Your task to perform on an android device: Is it going to rain this weekend? Image 0: 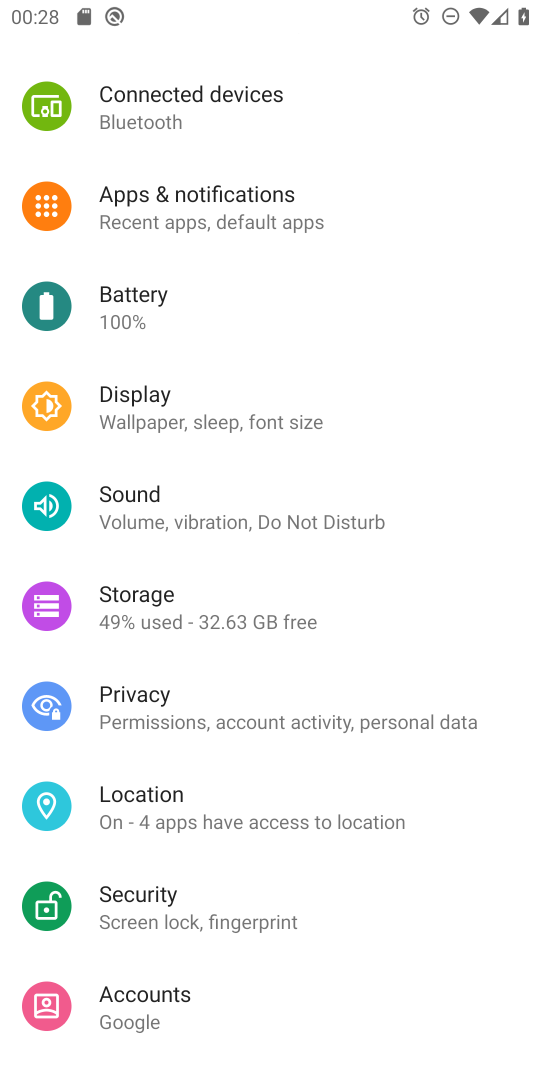
Step 0: press home button
Your task to perform on an android device: Is it going to rain this weekend? Image 1: 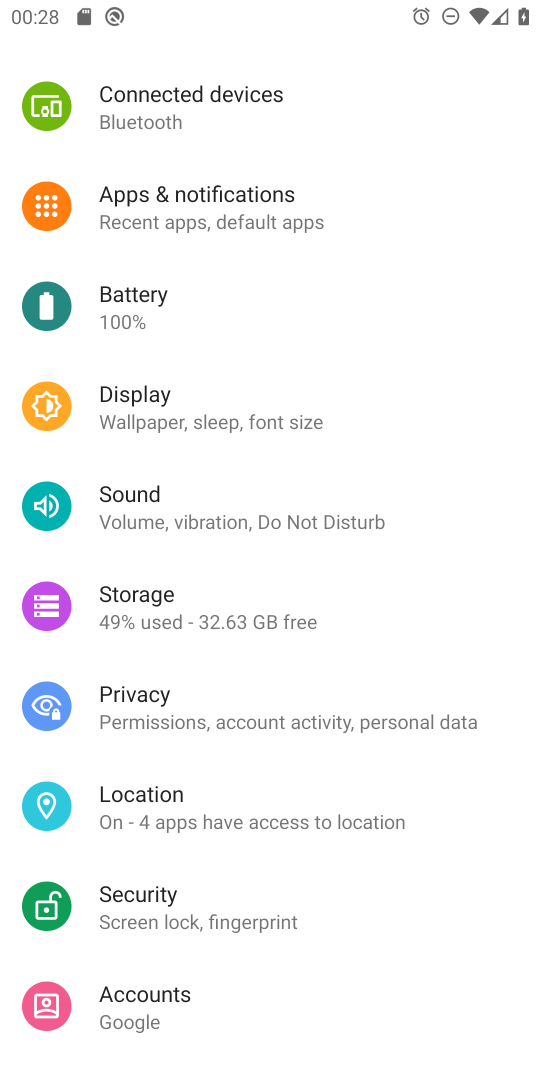
Step 1: press home button
Your task to perform on an android device: Is it going to rain this weekend? Image 2: 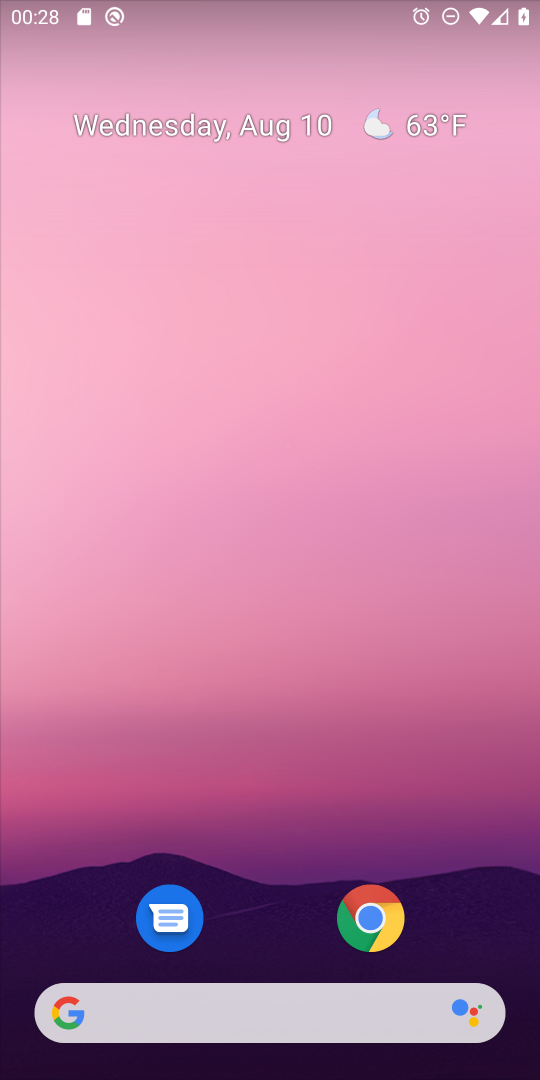
Step 2: drag from (237, 901) to (325, 84)
Your task to perform on an android device: Is it going to rain this weekend? Image 3: 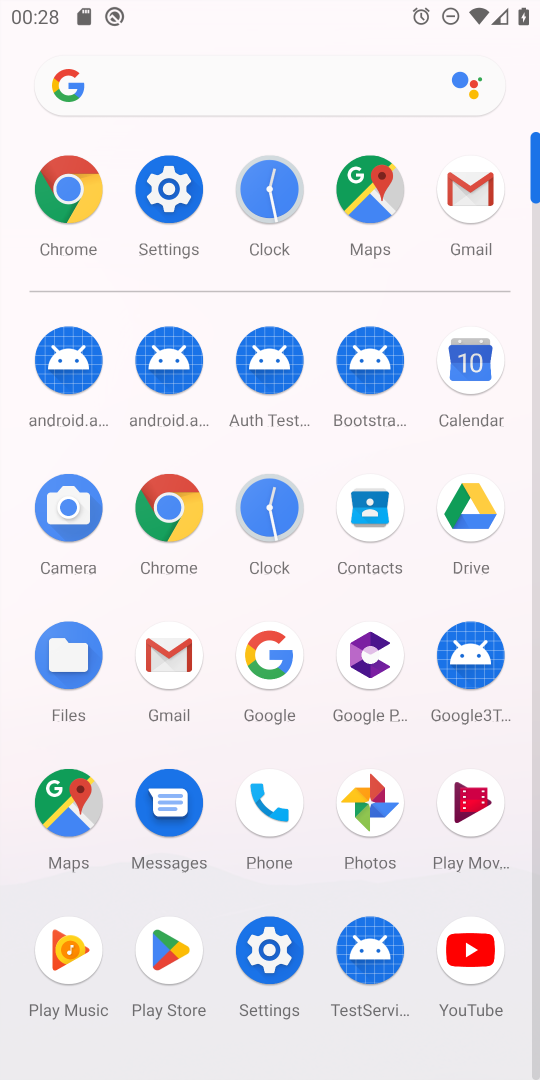
Step 3: click (170, 504)
Your task to perform on an android device: Is it going to rain this weekend? Image 4: 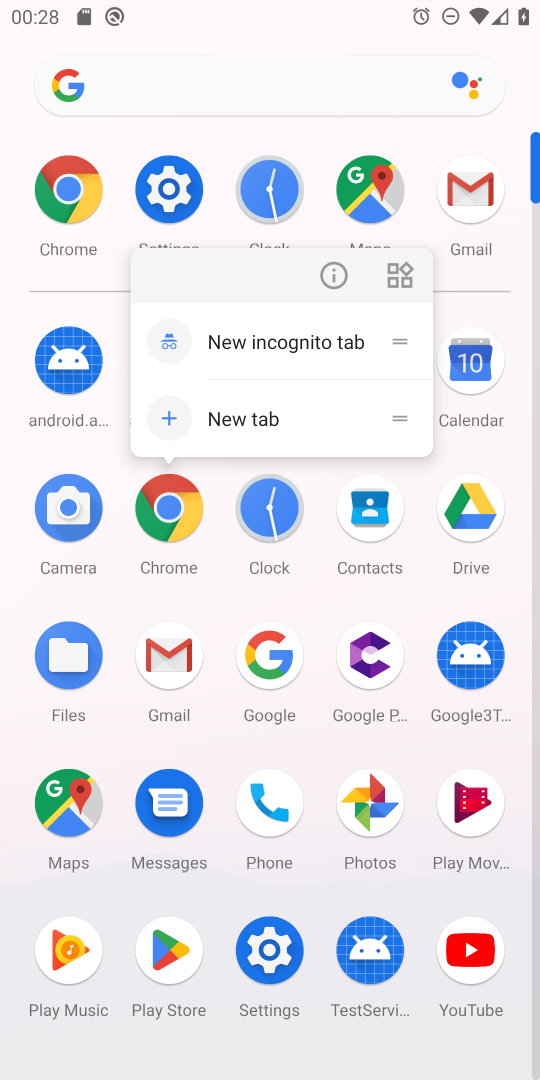
Step 4: click (165, 514)
Your task to perform on an android device: Is it going to rain this weekend? Image 5: 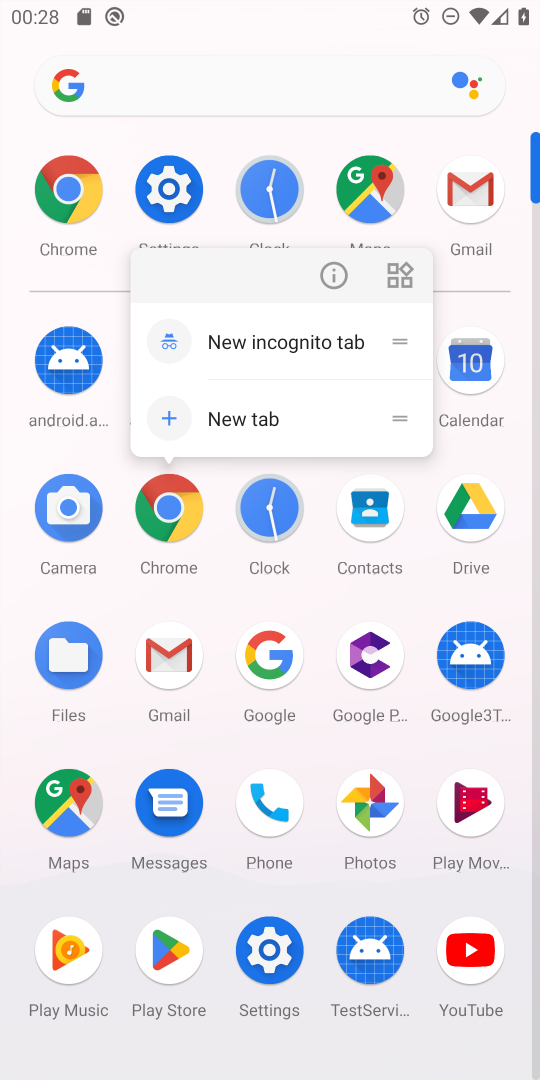
Step 5: click (167, 513)
Your task to perform on an android device: Is it going to rain this weekend? Image 6: 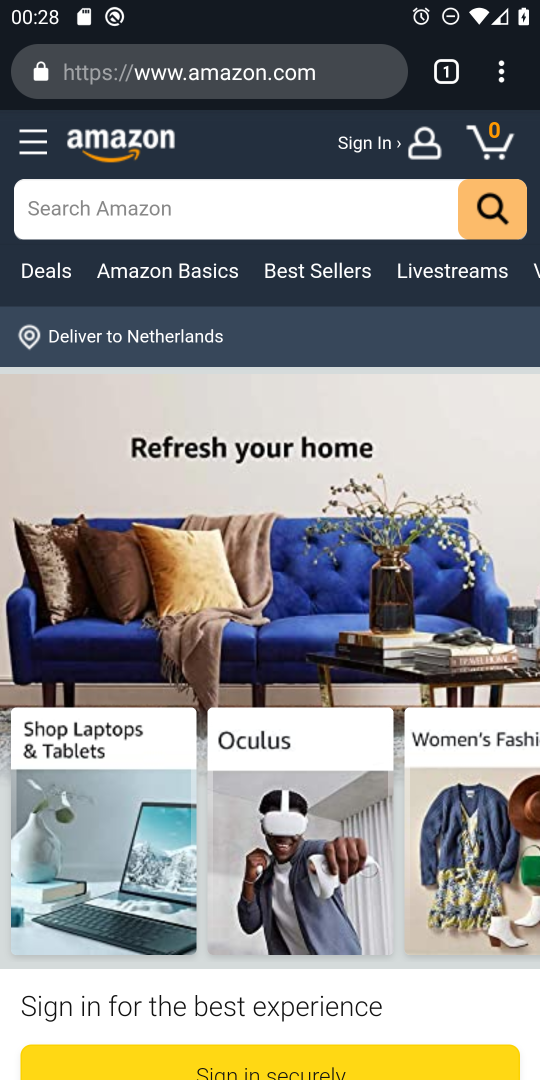
Step 6: click (253, 85)
Your task to perform on an android device: Is it going to rain this weekend? Image 7: 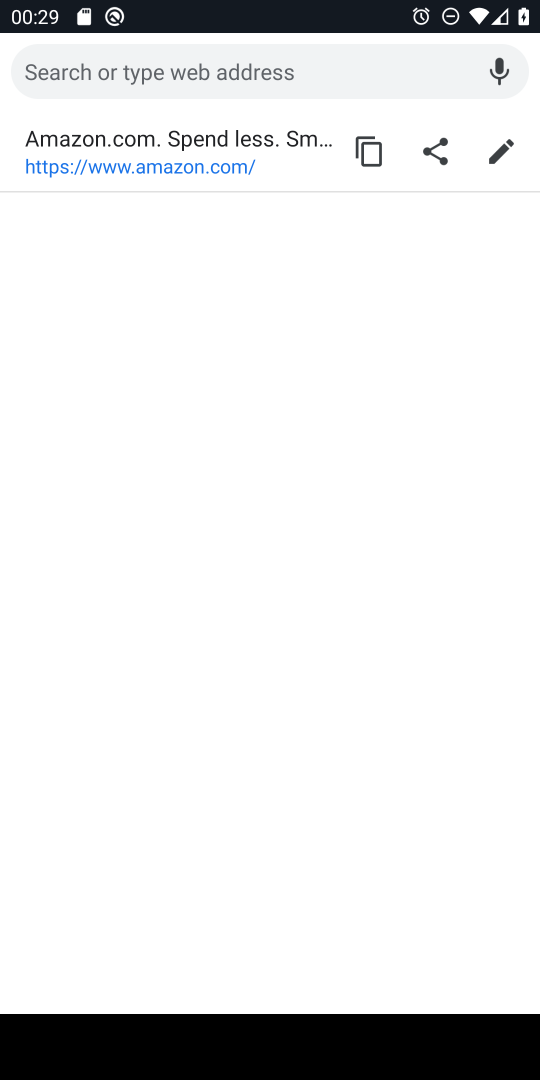
Step 7: type "weather"
Your task to perform on an android device: Is it going to rain this weekend? Image 8: 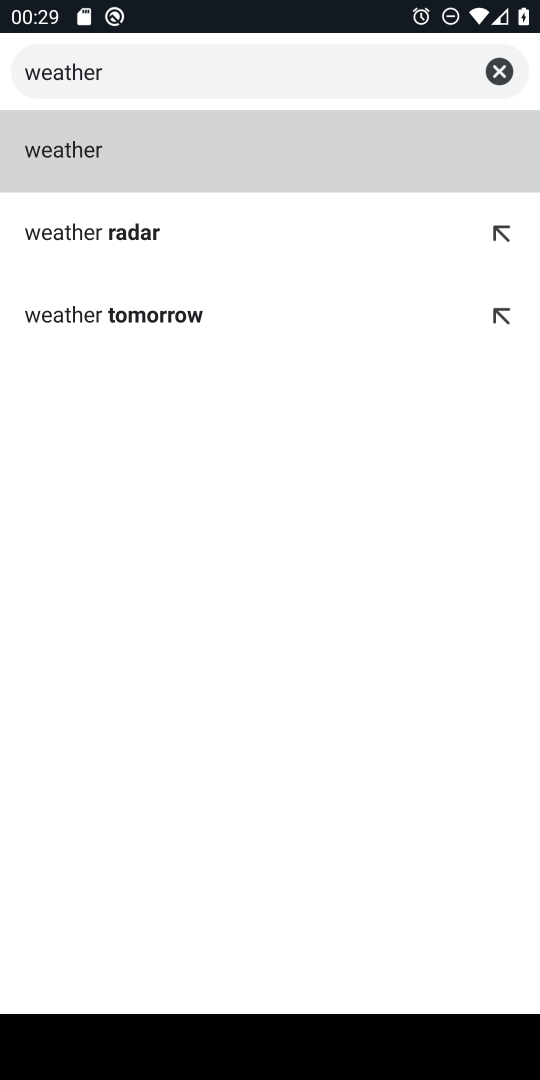
Step 8: click (82, 147)
Your task to perform on an android device: Is it going to rain this weekend? Image 9: 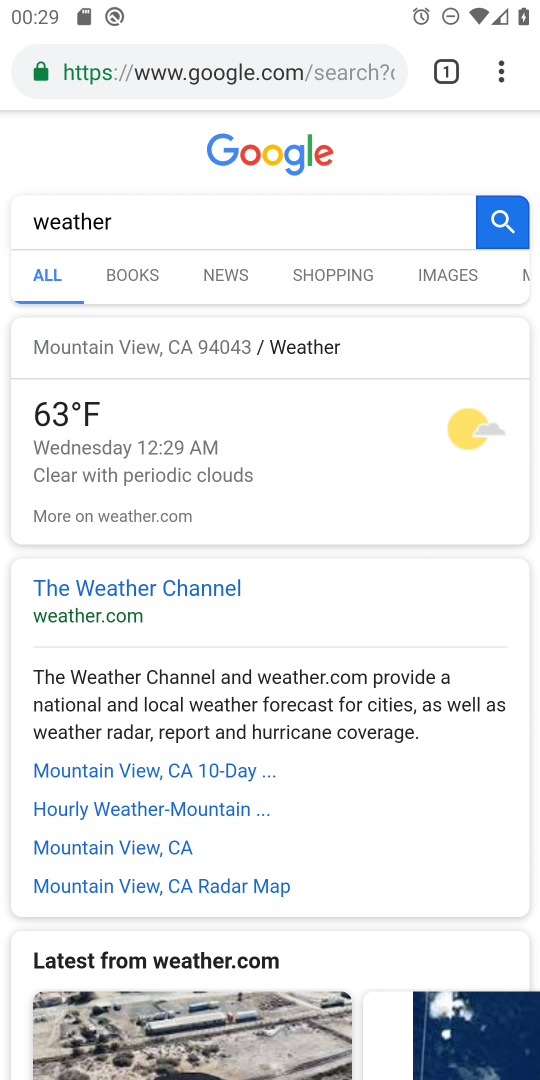
Step 9: click (262, 227)
Your task to perform on an android device: Is it going to rain this weekend? Image 10: 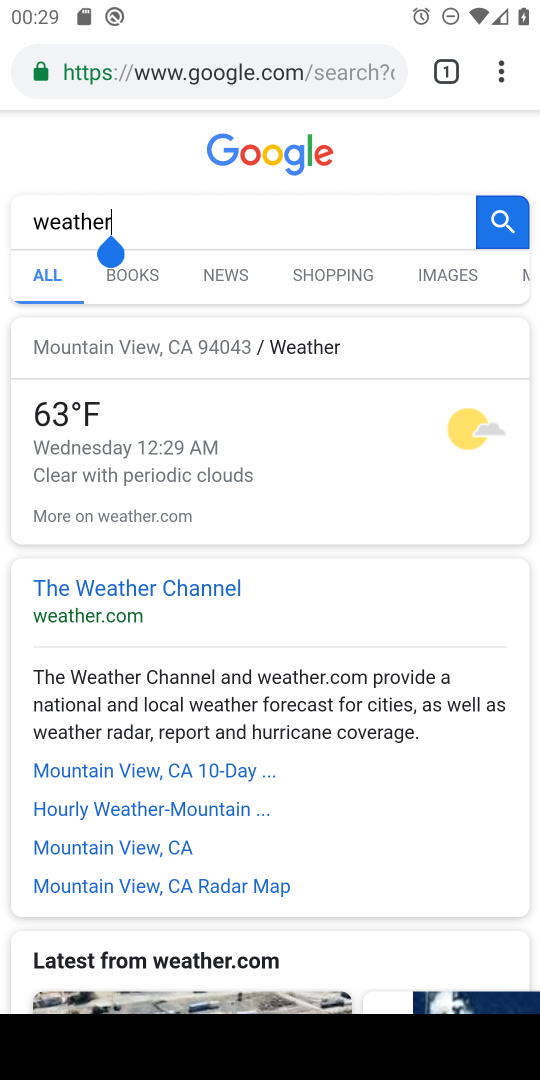
Step 10: type "  weekend"
Your task to perform on an android device: Is it going to rain this weekend? Image 11: 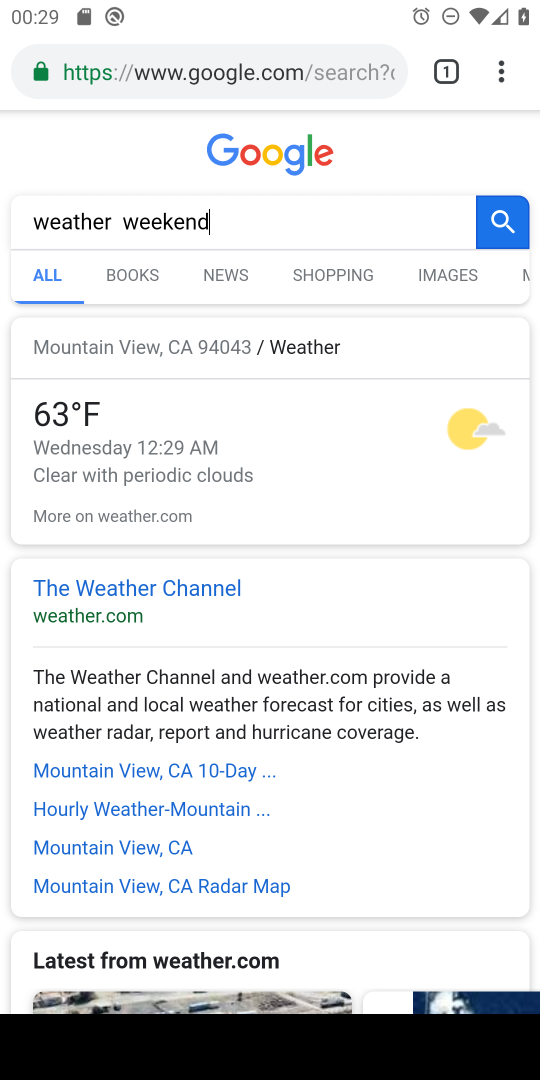
Step 11: click (508, 218)
Your task to perform on an android device: Is it going to rain this weekend? Image 12: 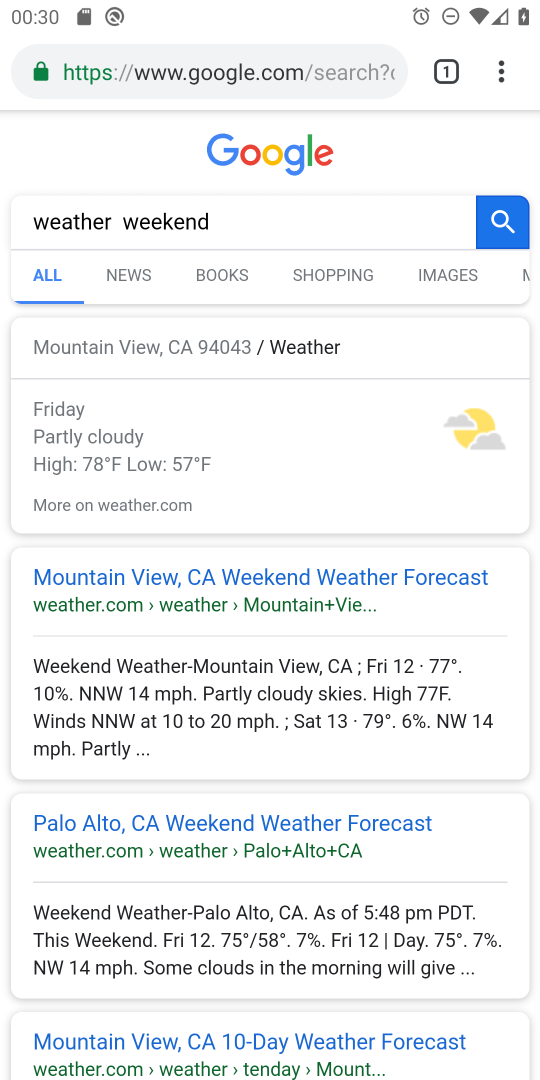
Step 12: task complete